Your task to perform on an android device: allow cookies in the chrome app Image 0: 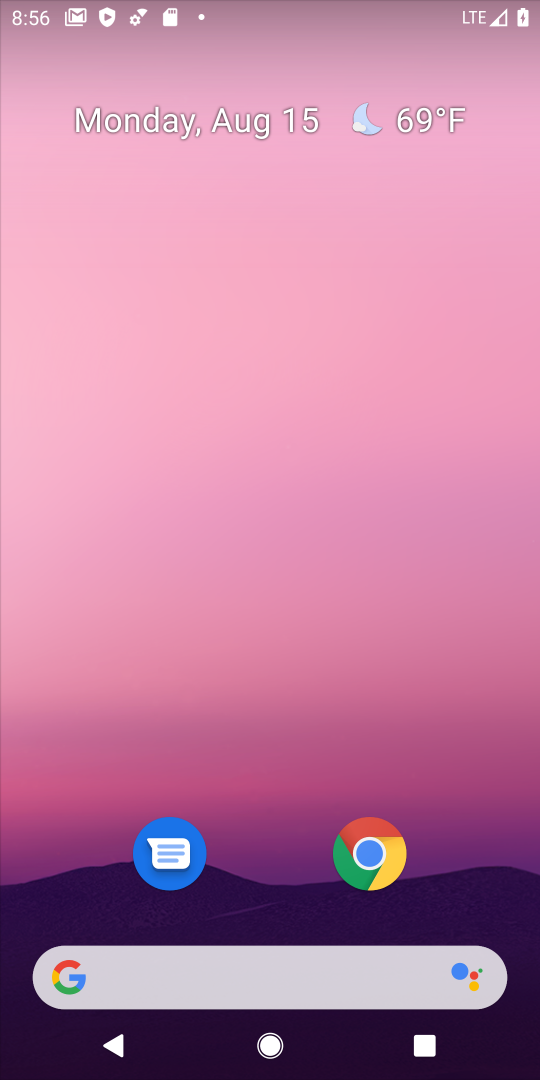
Step 0: drag from (296, 791) to (344, 41)
Your task to perform on an android device: allow cookies in the chrome app Image 1: 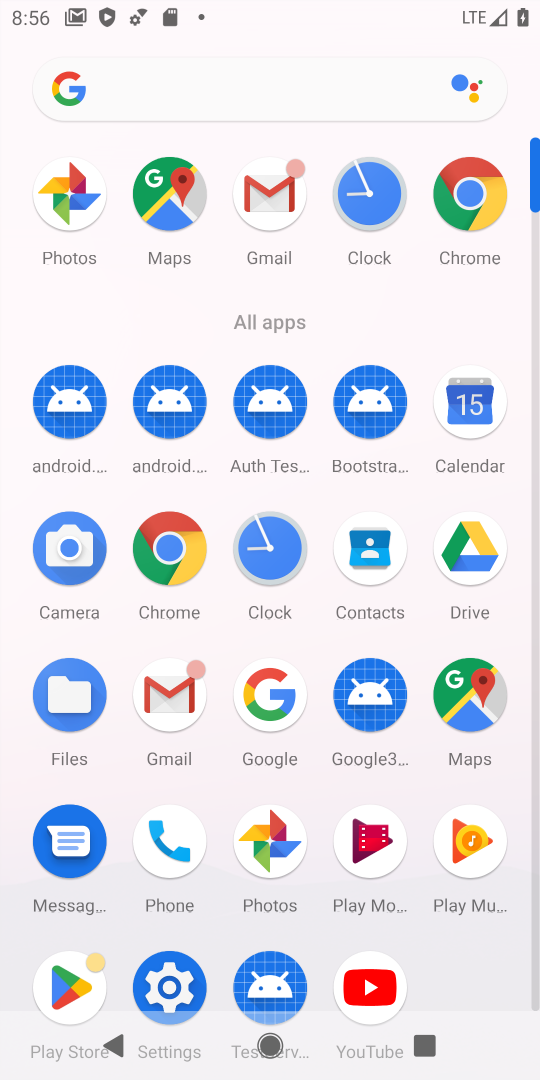
Step 1: click (160, 554)
Your task to perform on an android device: allow cookies in the chrome app Image 2: 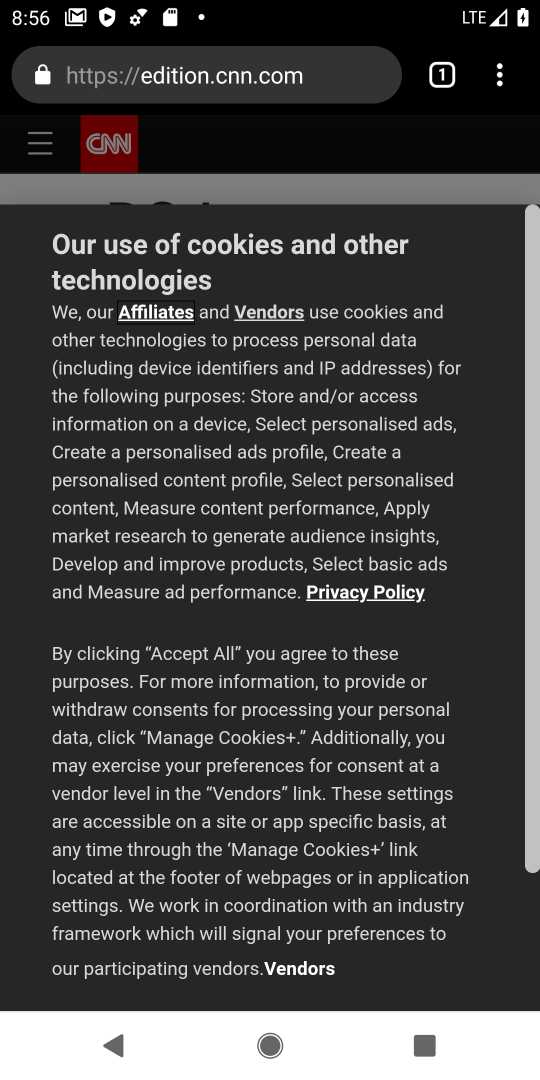
Step 2: click (246, 89)
Your task to perform on an android device: allow cookies in the chrome app Image 3: 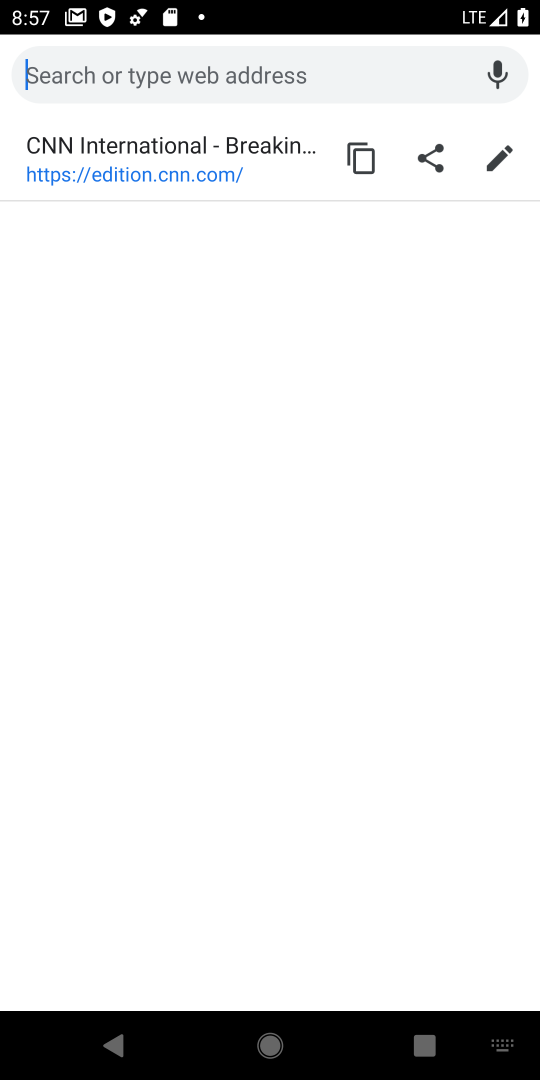
Step 3: press back button
Your task to perform on an android device: allow cookies in the chrome app Image 4: 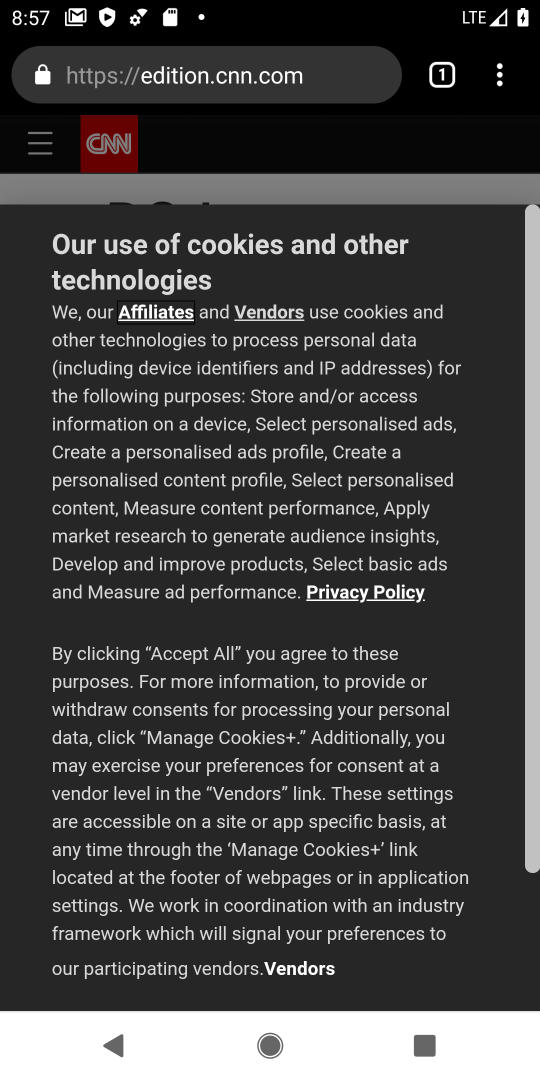
Step 4: drag from (505, 75) to (296, 827)
Your task to perform on an android device: allow cookies in the chrome app Image 5: 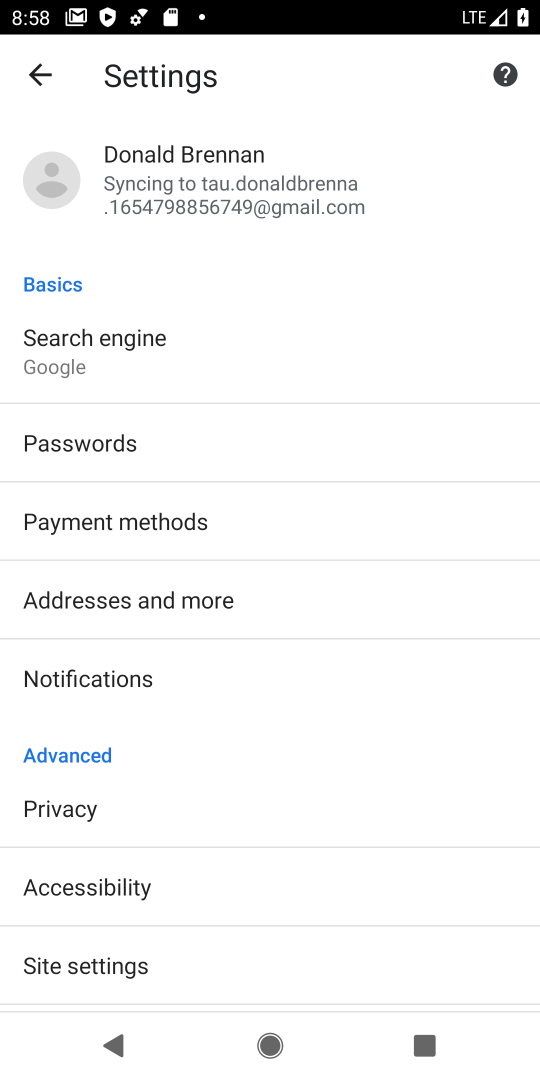
Step 5: drag from (253, 878) to (294, 296)
Your task to perform on an android device: allow cookies in the chrome app Image 6: 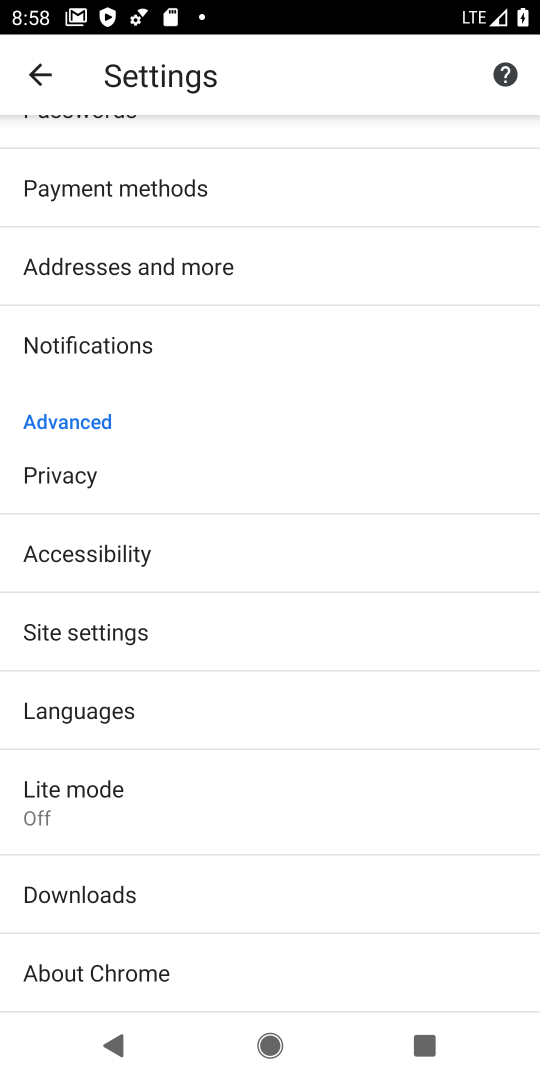
Step 6: click (114, 466)
Your task to perform on an android device: allow cookies in the chrome app Image 7: 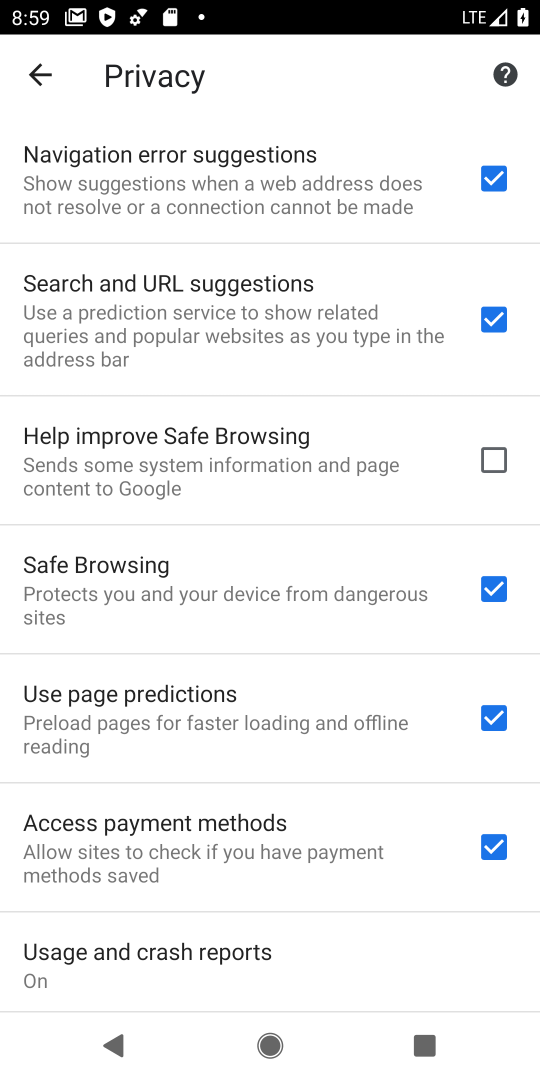
Step 7: drag from (267, 218) to (155, 73)
Your task to perform on an android device: allow cookies in the chrome app Image 8: 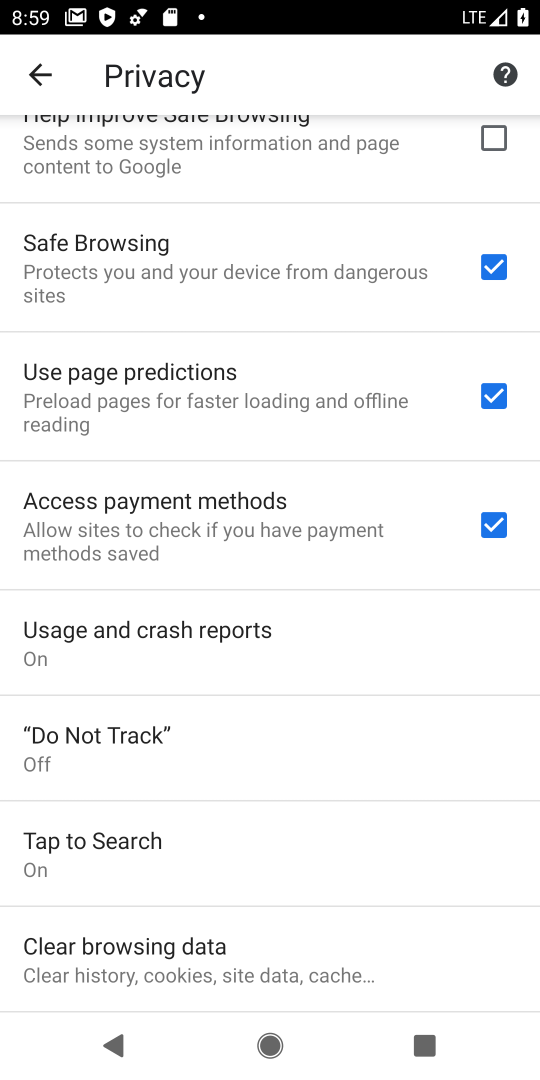
Step 8: click (69, 944)
Your task to perform on an android device: allow cookies in the chrome app Image 9: 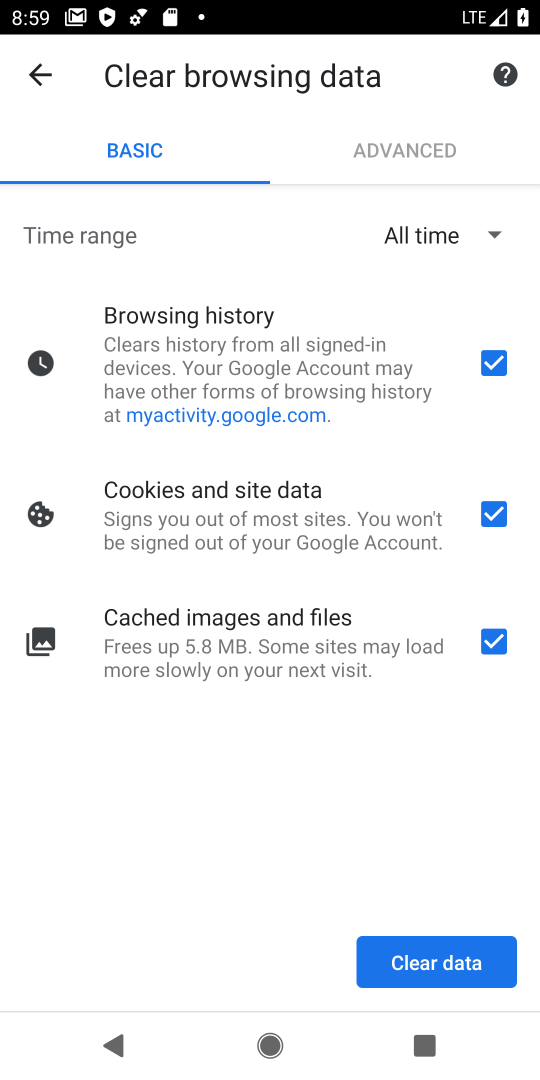
Step 9: click (450, 976)
Your task to perform on an android device: allow cookies in the chrome app Image 10: 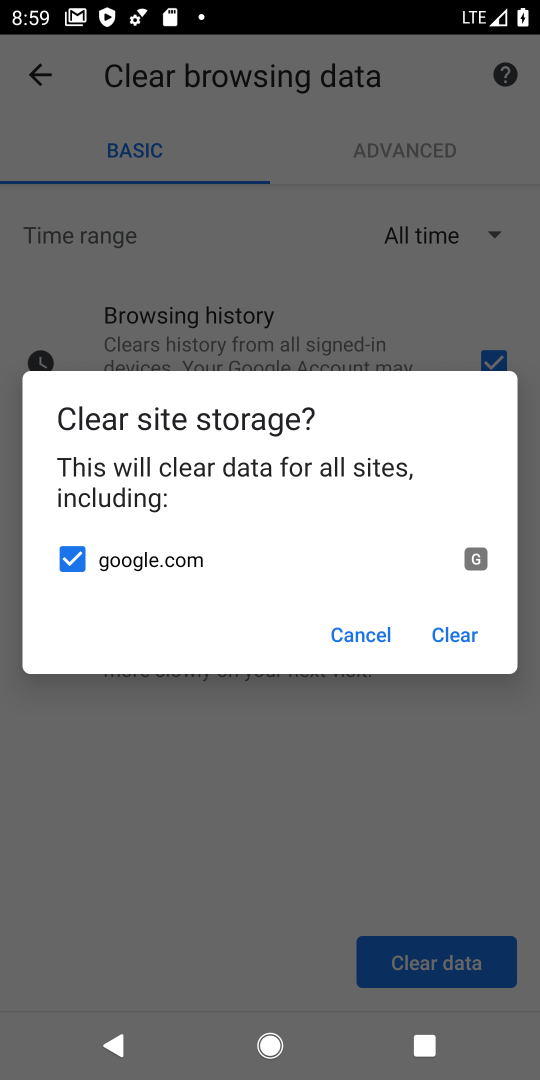
Step 10: click (440, 654)
Your task to perform on an android device: allow cookies in the chrome app Image 11: 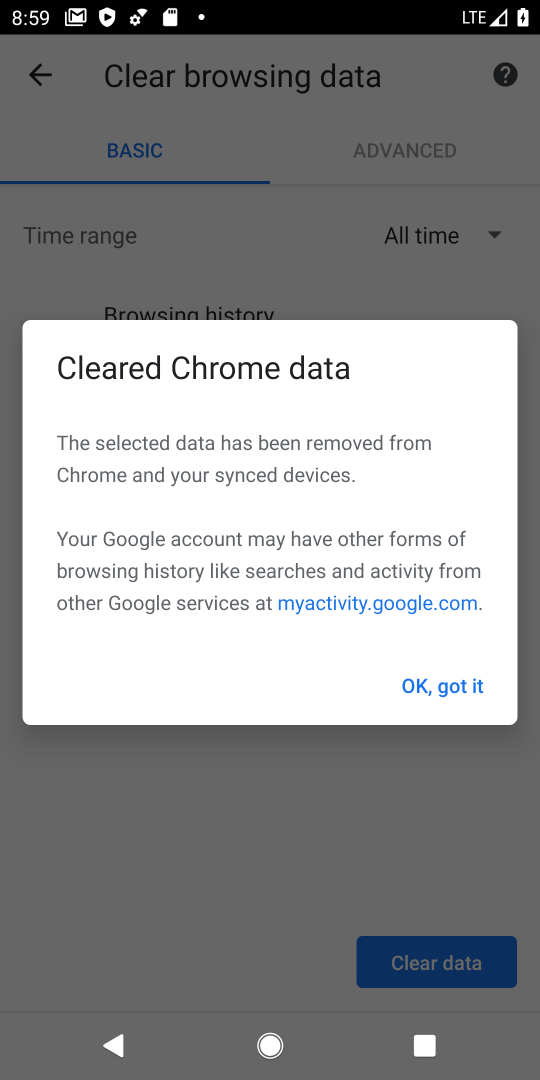
Step 11: click (445, 674)
Your task to perform on an android device: allow cookies in the chrome app Image 12: 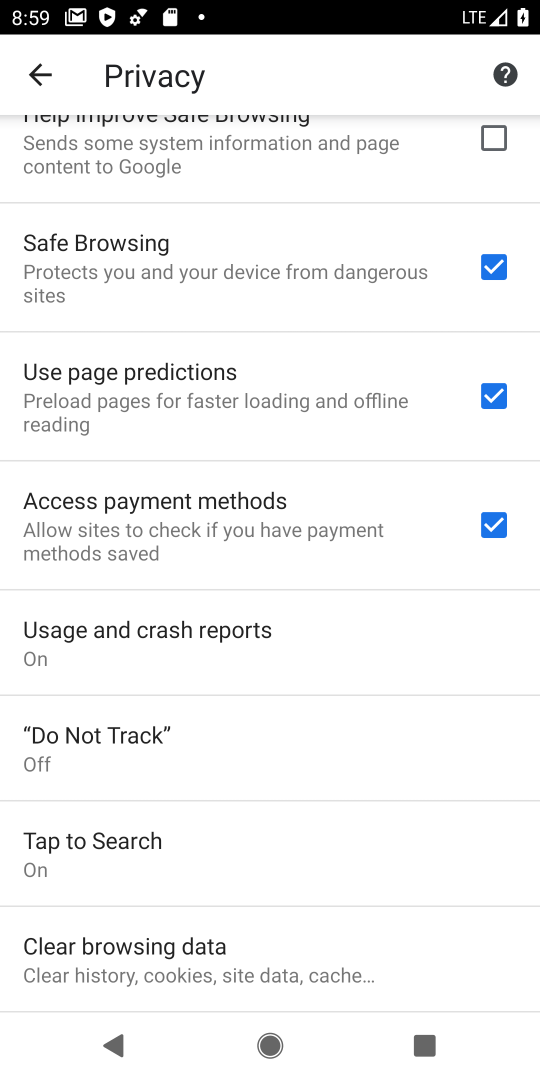
Step 12: task complete